Your task to perform on an android device: choose inbox layout in the gmail app Image 0: 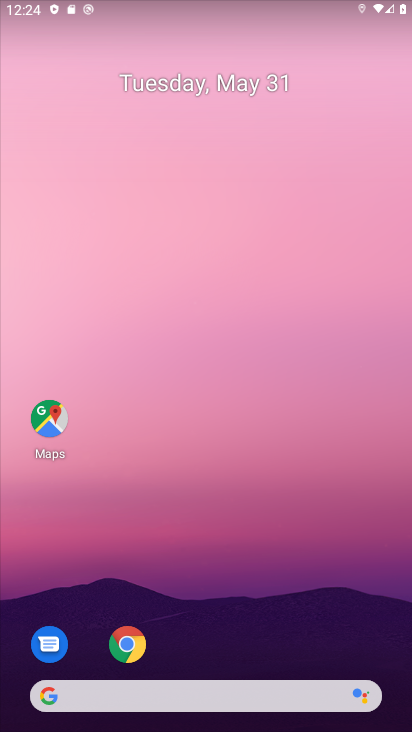
Step 0: press home button
Your task to perform on an android device: choose inbox layout in the gmail app Image 1: 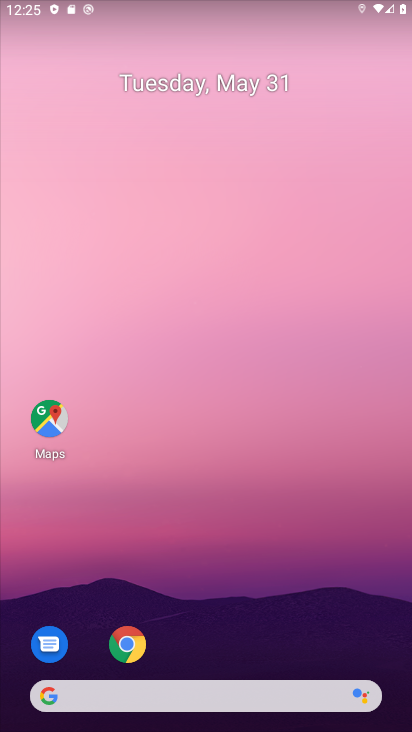
Step 1: drag from (307, 640) to (258, 103)
Your task to perform on an android device: choose inbox layout in the gmail app Image 2: 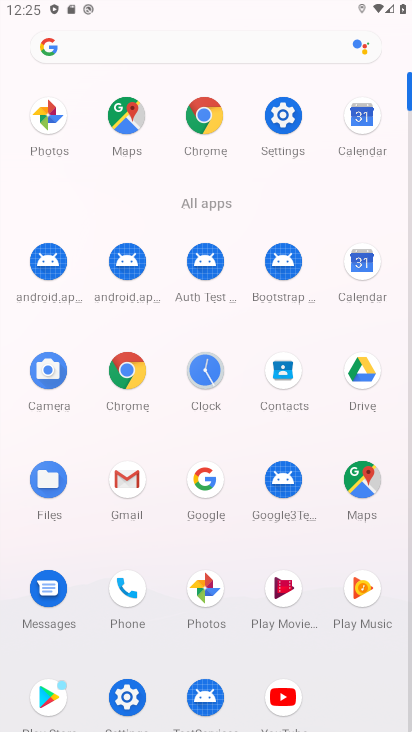
Step 2: click (116, 479)
Your task to perform on an android device: choose inbox layout in the gmail app Image 3: 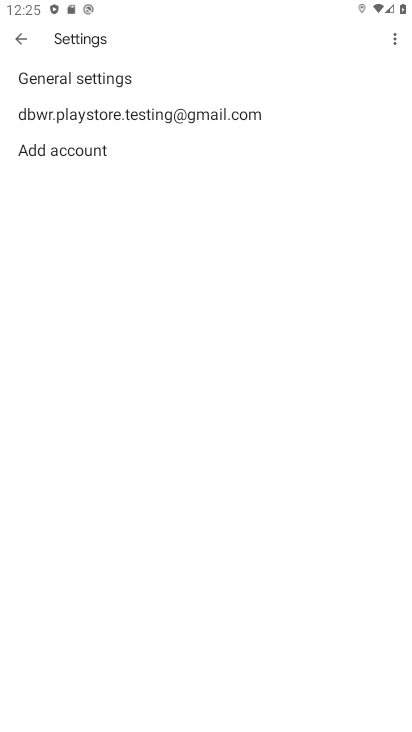
Step 3: click (59, 113)
Your task to perform on an android device: choose inbox layout in the gmail app Image 4: 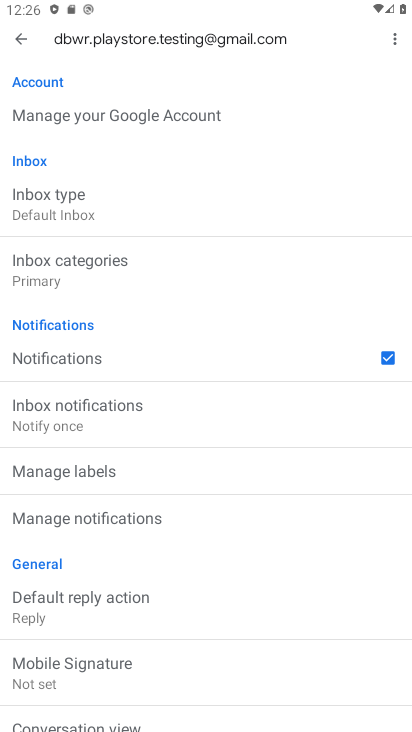
Step 4: click (44, 206)
Your task to perform on an android device: choose inbox layout in the gmail app Image 5: 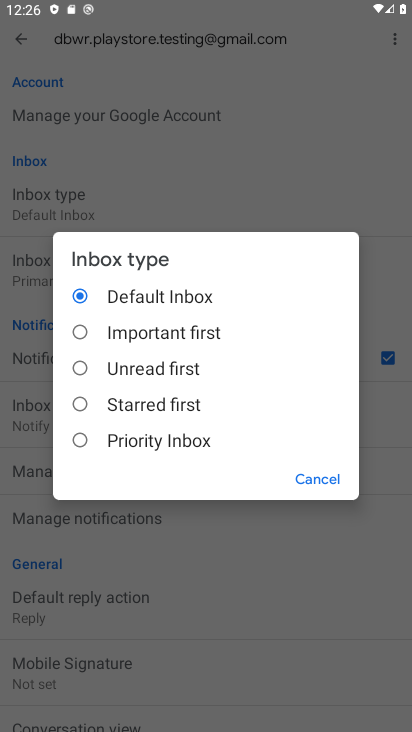
Step 5: click (85, 369)
Your task to perform on an android device: choose inbox layout in the gmail app Image 6: 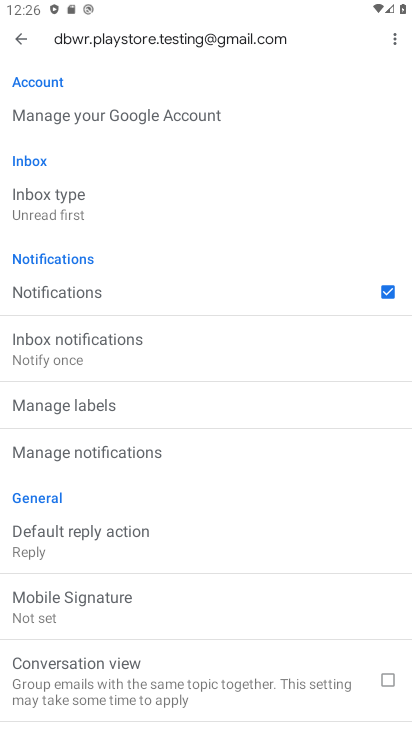
Step 6: task complete